Your task to perform on an android device: Go to notification settings Image 0: 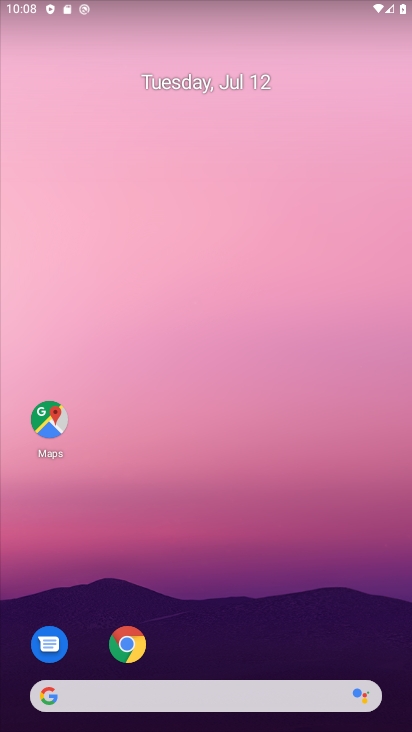
Step 0: drag from (253, 661) to (191, 240)
Your task to perform on an android device: Go to notification settings Image 1: 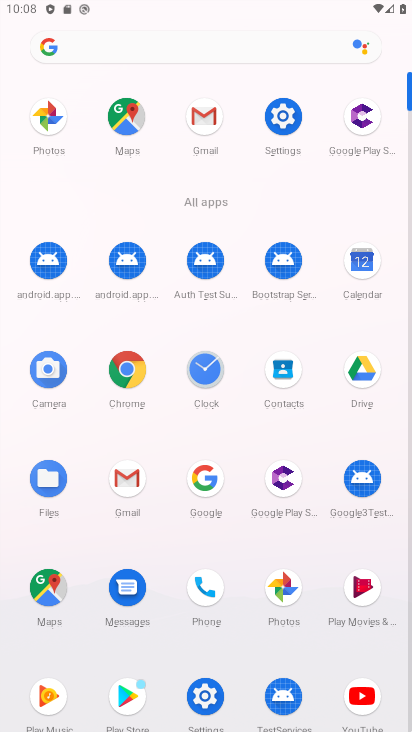
Step 1: click (280, 120)
Your task to perform on an android device: Go to notification settings Image 2: 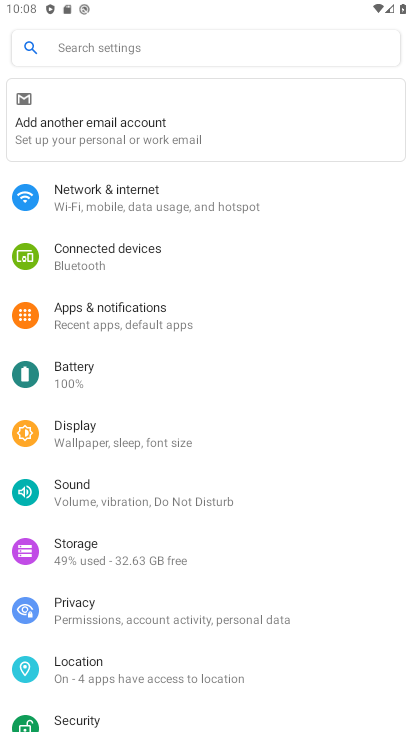
Step 2: click (125, 327)
Your task to perform on an android device: Go to notification settings Image 3: 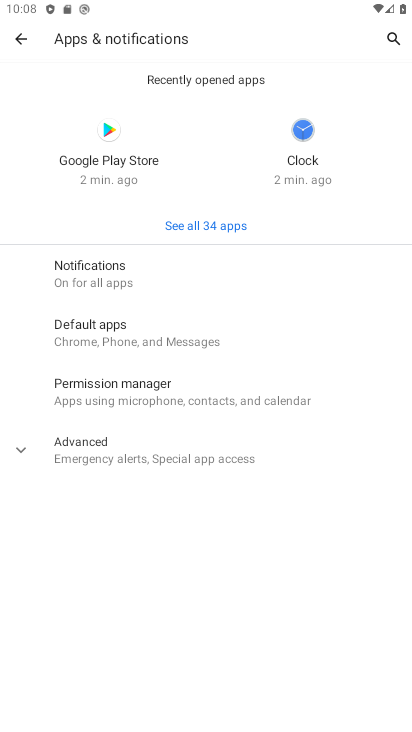
Step 3: click (97, 459)
Your task to perform on an android device: Go to notification settings Image 4: 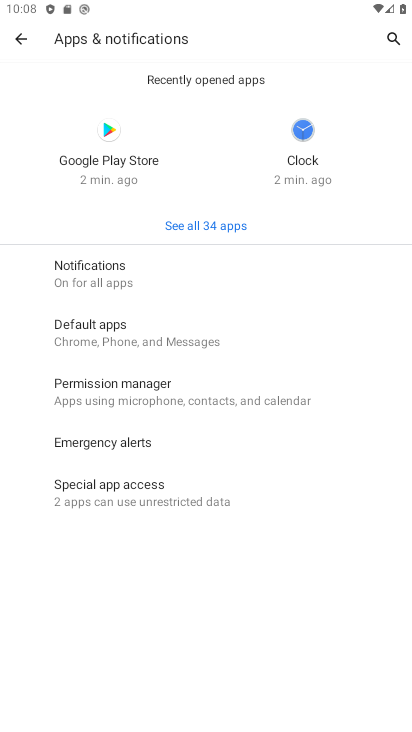
Step 4: task complete